Your task to perform on an android device: check battery use Image 0: 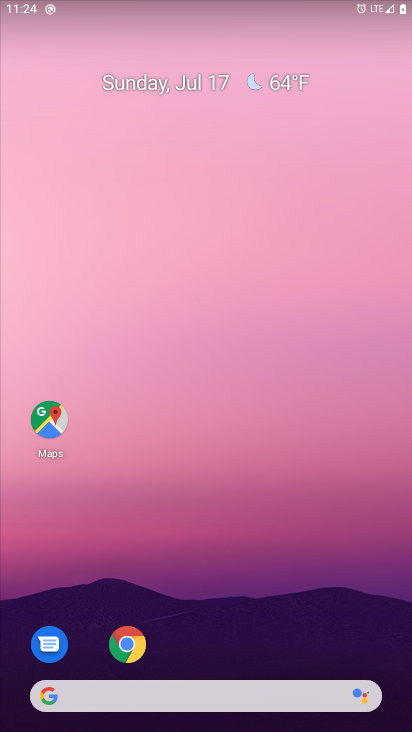
Step 0: press home button
Your task to perform on an android device: check battery use Image 1: 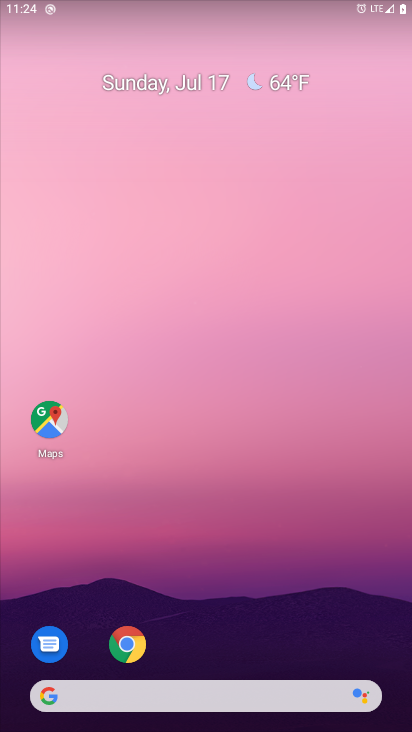
Step 1: drag from (274, 626) to (328, 4)
Your task to perform on an android device: check battery use Image 2: 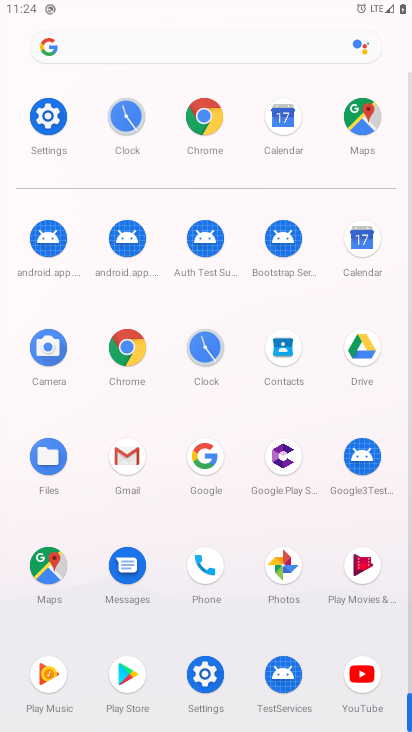
Step 2: click (41, 112)
Your task to perform on an android device: check battery use Image 3: 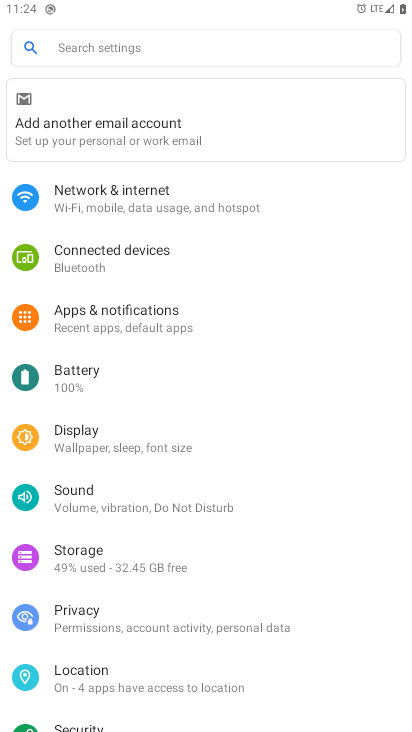
Step 3: click (51, 380)
Your task to perform on an android device: check battery use Image 4: 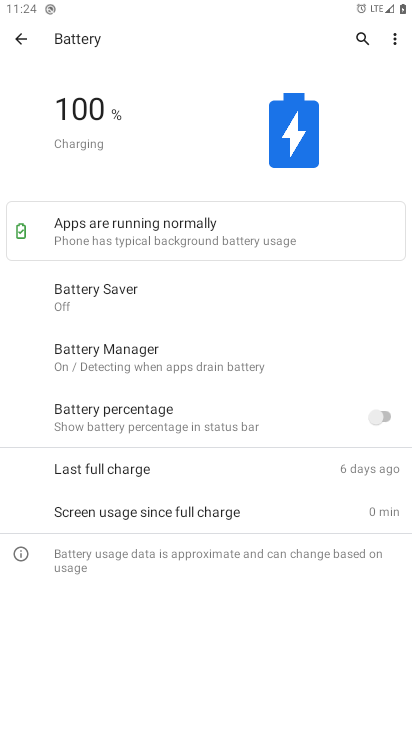
Step 4: task complete